Your task to perform on an android device: Find coffee shops on Maps Image 0: 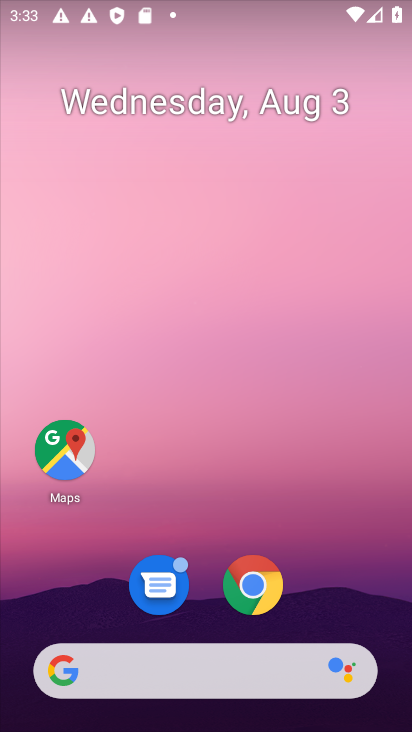
Step 0: drag from (400, 672) to (301, 179)
Your task to perform on an android device: Find coffee shops on Maps Image 1: 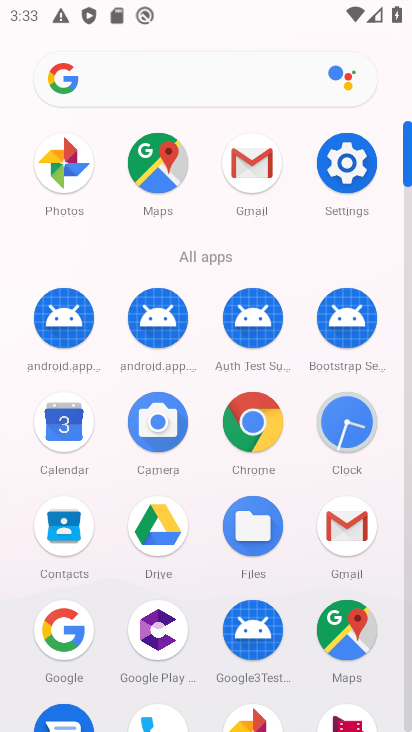
Step 1: click (167, 258)
Your task to perform on an android device: Find coffee shops on Maps Image 2: 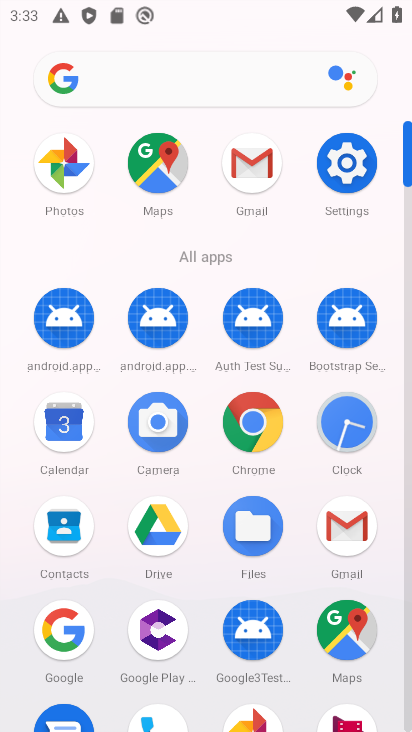
Step 2: click (152, 159)
Your task to perform on an android device: Find coffee shops on Maps Image 3: 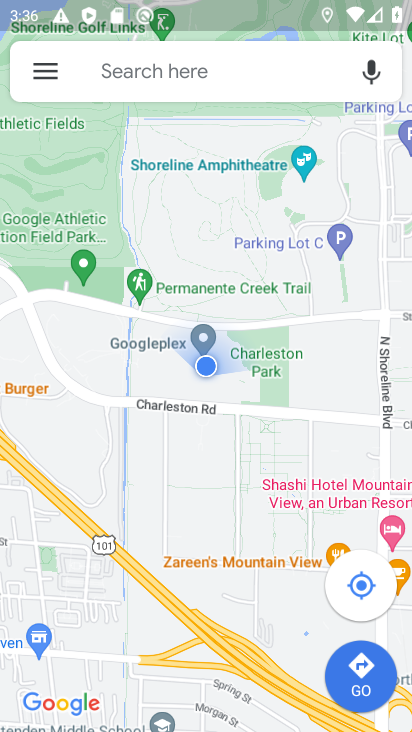
Step 3: click (220, 81)
Your task to perform on an android device: Find coffee shops on Maps Image 4: 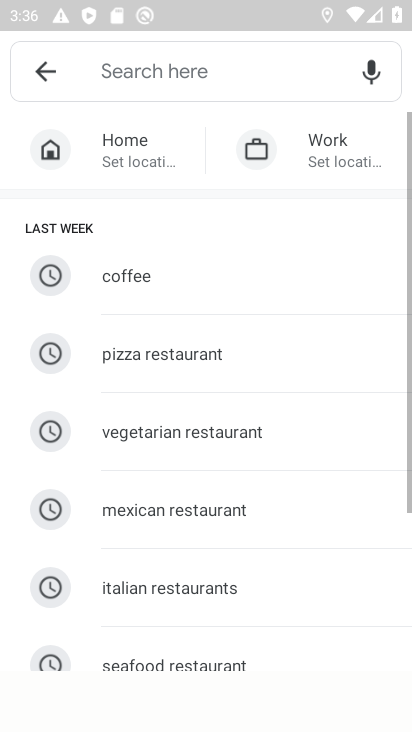
Step 4: type "coffee shops"
Your task to perform on an android device: Find coffee shops on Maps Image 5: 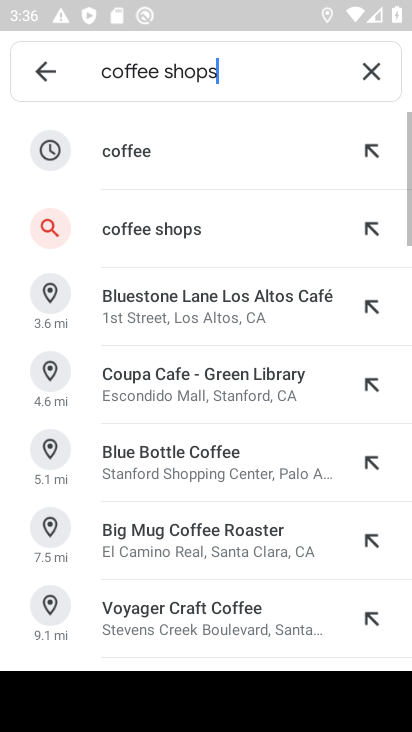
Step 5: click (121, 234)
Your task to perform on an android device: Find coffee shops on Maps Image 6: 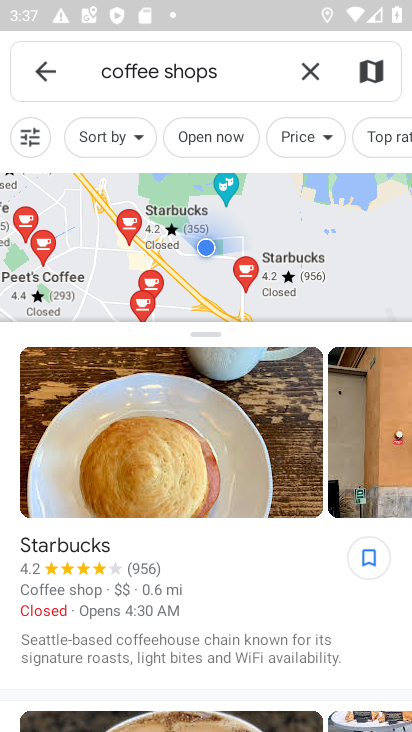
Step 6: task complete